Your task to perform on an android device: open a new tab in the chrome app Image 0: 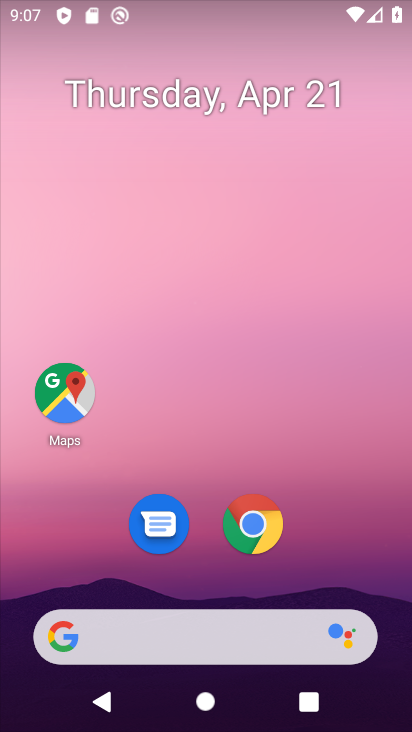
Step 0: click (253, 527)
Your task to perform on an android device: open a new tab in the chrome app Image 1: 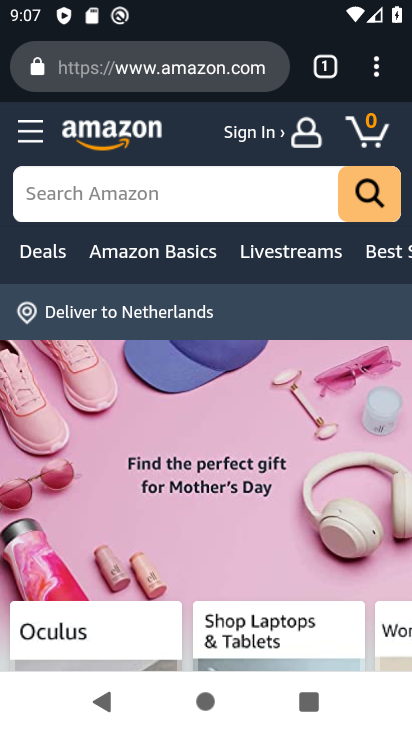
Step 1: task complete